Your task to perform on an android device: Turn on the flashlight Image 0: 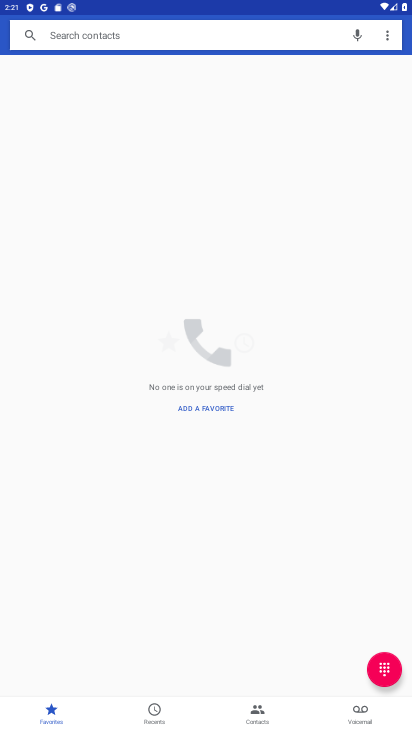
Step 0: drag from (205, 2) to (237, 373)
Your task to perform on an android device: Turn on the flashlight Image 1: 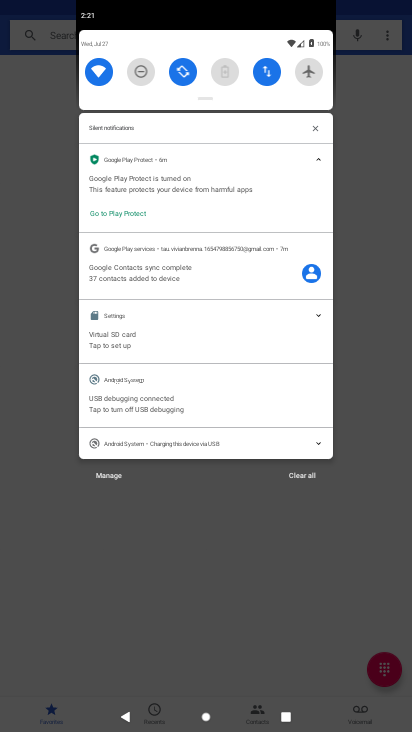
Step 1: drag from (204, 74) to (232, 485)
Your task to perform on an android device: Turn on the flashlight Image 2: 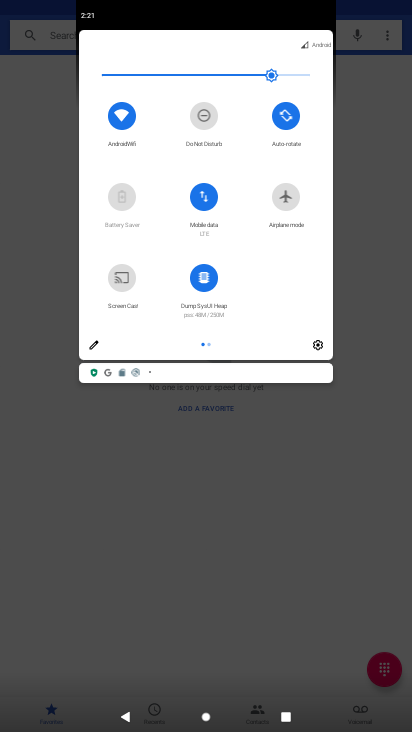
Step 2: drag from (283, 290) to (27, 286)
Your task to perform on an android device: Turn on the flashlight Image 3: 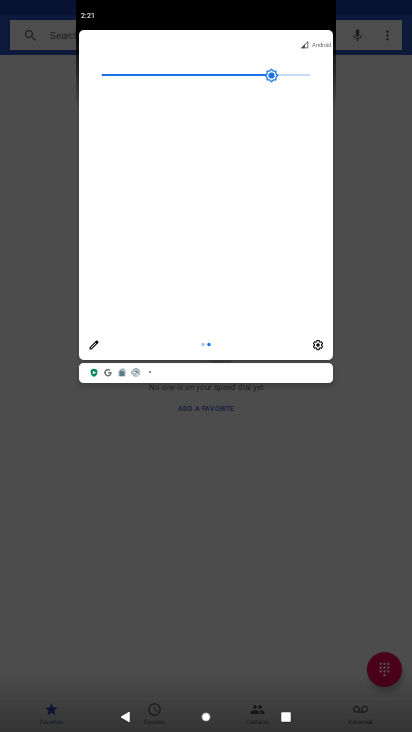
Step 3: click (96, 349)
Your task to perform on an android device: Turn on the flashlight Image 4: 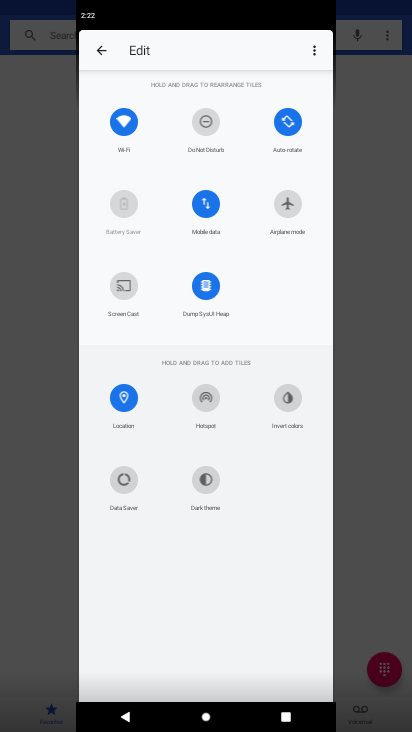
Step 4: task complete